Your task to perform on an android device: What's the weather? Image 0: 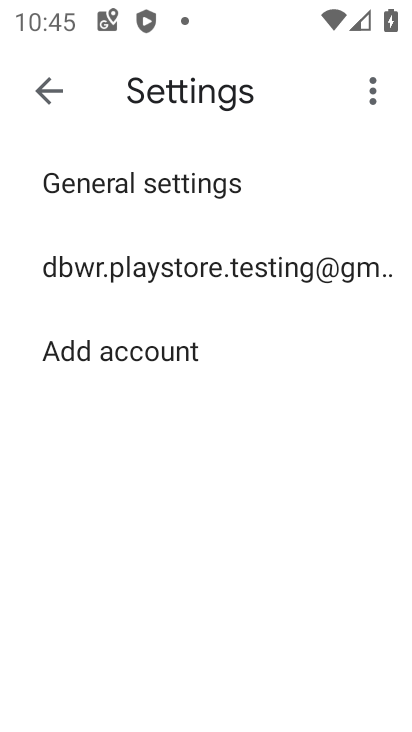
Step 0: press home button
Your task to perform on an android device: What's the weather? Image 1: 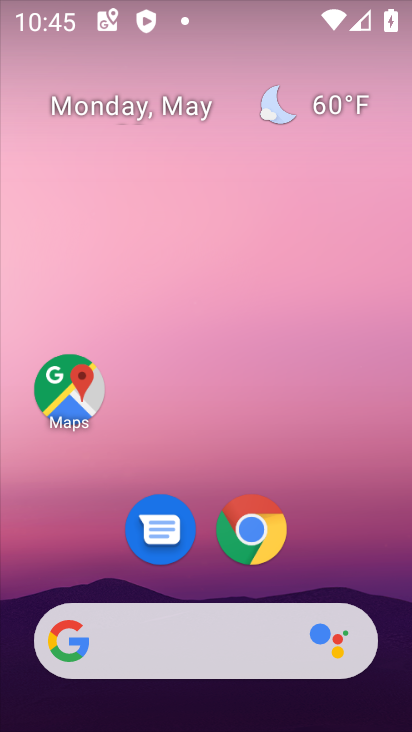
Step 1: click (207, 634)
Your task to perform on an android device: What's the weather? Image 2: 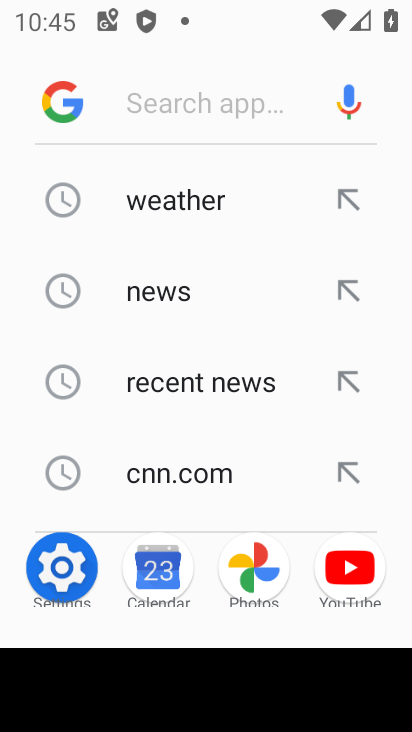
Step 2: click (166, 198)
Your task to perform on an android device: What's the weather? Image 3: 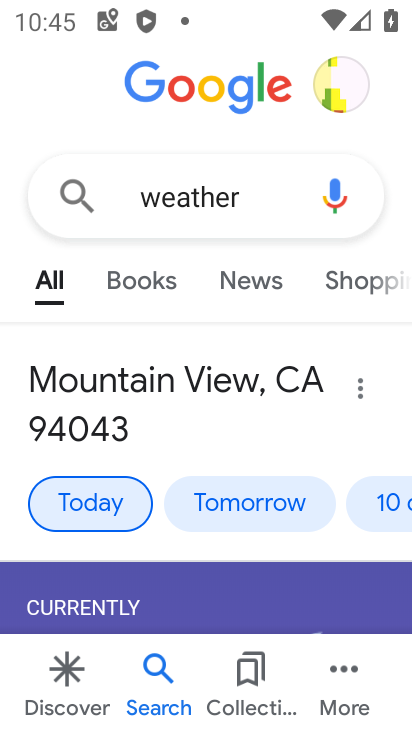
Step 3: drag from (199, 559) to (199, 229)
Your task to perform on an android device: What's the weather? Image 4: 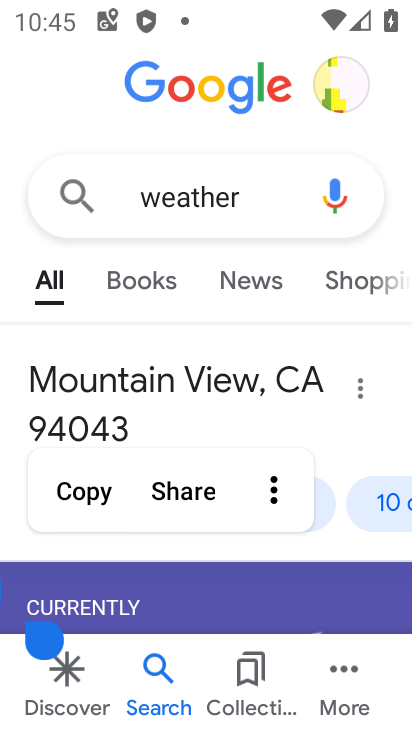
Step 4: click (326, 552)
Your task to perform on an android device: What's the weather? Image 5: 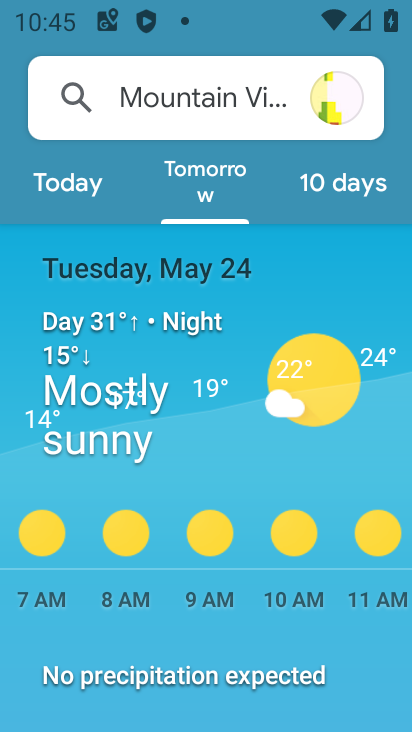
Step 5: click (49, 185)
Your task to perform on an android device: What's the weather? Image 6: 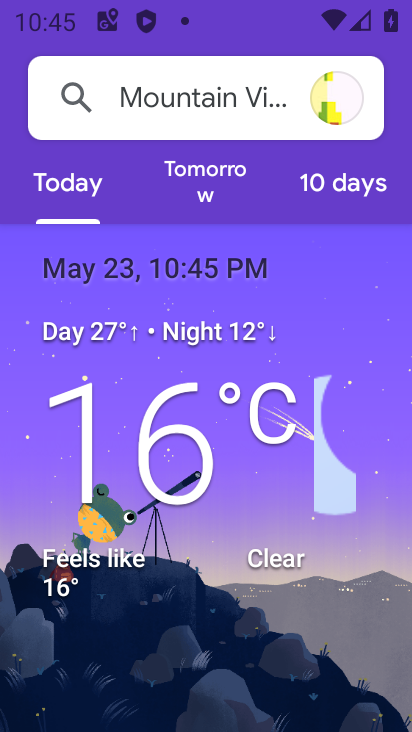
Step 6: task complete